Your task to perform on an android device: Set the phone to "Do not disturb". Image 0: 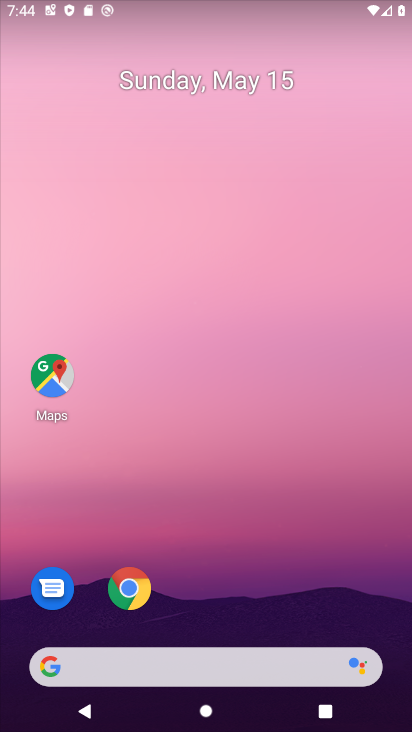
Step 0: drag from (176, 6) to (176, 544)
Your task to perform on an android device: Set the phone to "Do not disturb". Image 1: 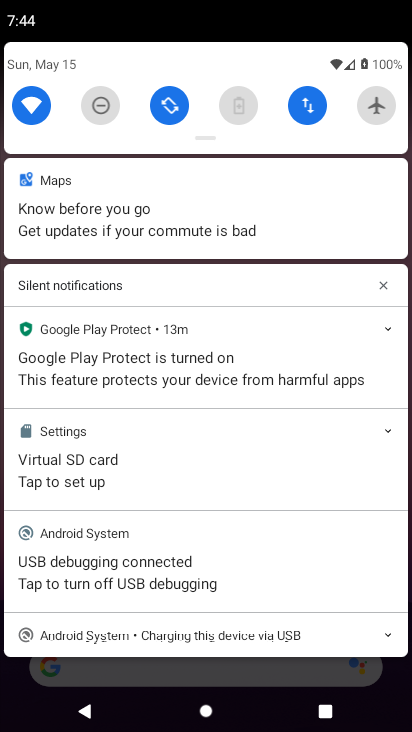
Step 1: click (96, 97)
Your task to perform on an android device: Set the phone to "Do not disturb". Image 2: 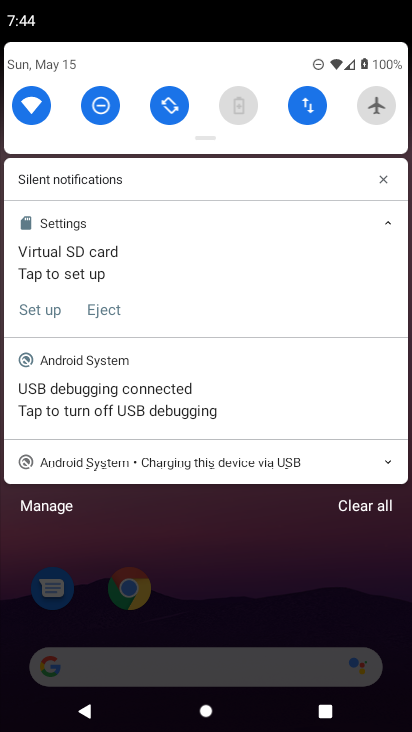
Step 2: task complete